Your task to perform on an android device: toggle notification dots Image 0: 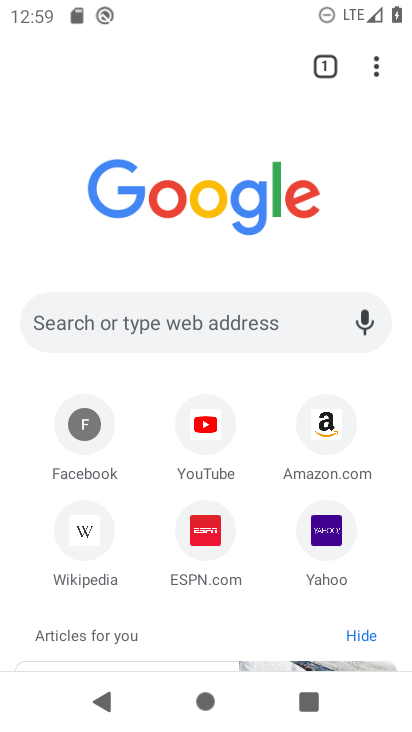
Step 0: press home button
Your task to perform on an android device: toggle notification dots Image 1: 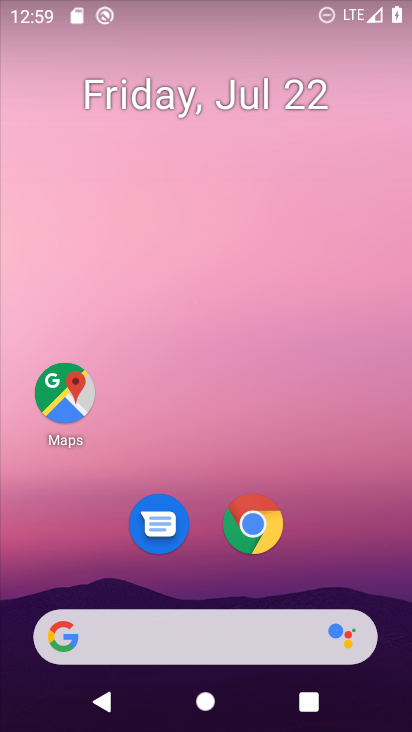
Step 1: drag from (311, 509) to (306, 64)
Your task to perform on an android device: toggle notification dots Image 2: 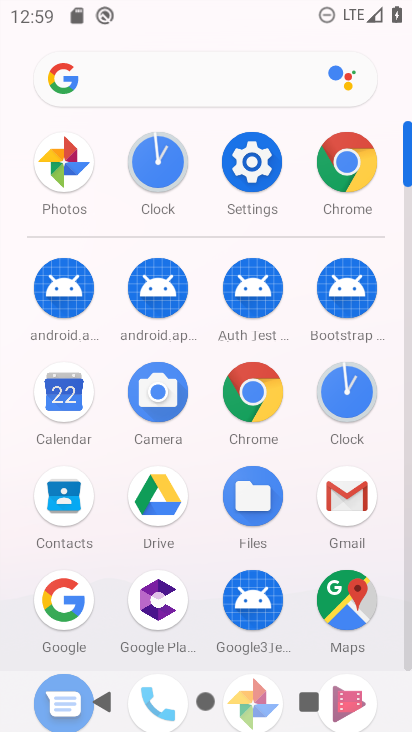
Step 2: click (253, 172)
Your task to perform on an android device: toggle notification dots Image 3: 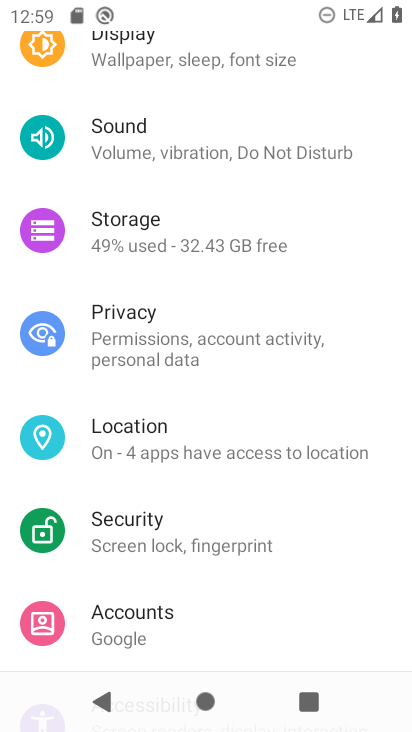
Step 3: drag from (227, 193) to (216, 633)
Your task to perform on an android device: toggle notification dots Image 4: 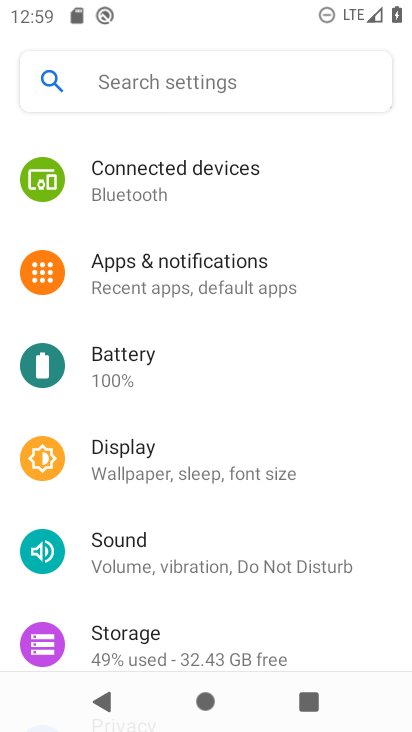
Step 4: click (268, 277)
Your task to perform on an android device: toggle notification dots Image 5: 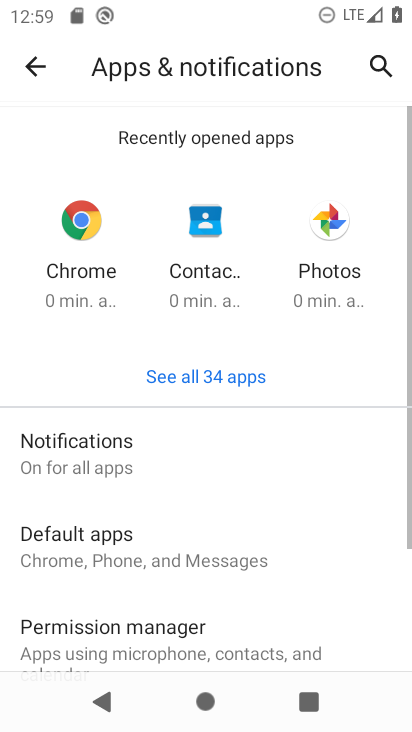
Step 5: drag from (211, 520) to (241, 166)
Your task to perform on an android device: toggle notification dots Image 6: 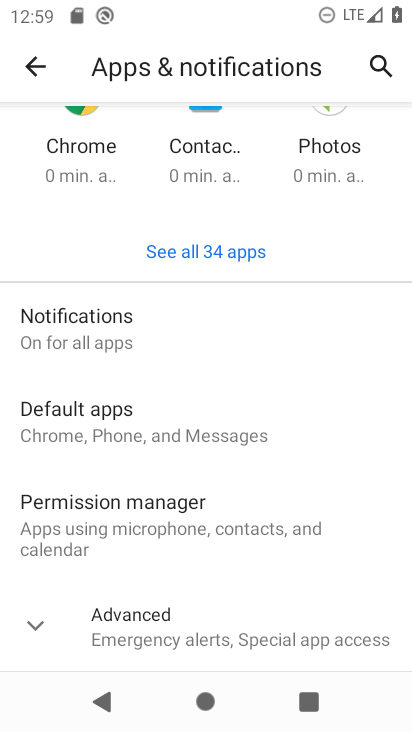
Step 6: click (104, 319)
Your task to perform on an android device: toggle notification dots Image 7: 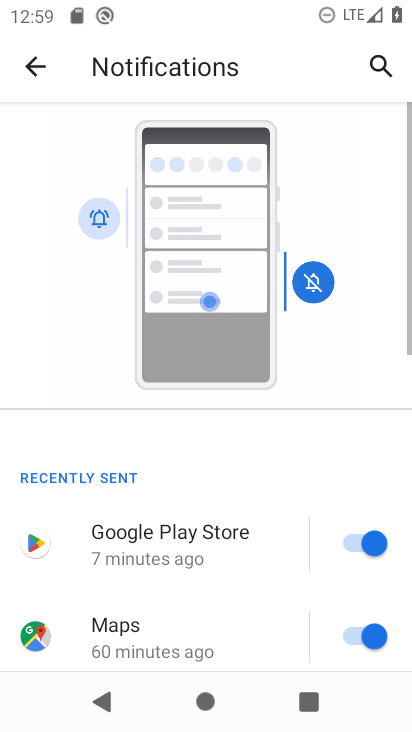
Step 7: drag from (247, 591) to (276, 56)
Your task to perform on an android device: toggle notification dots Image 8: 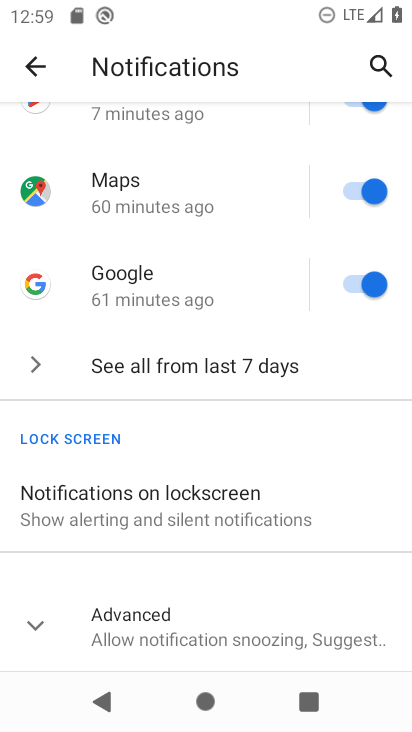
Step 8: click (26, 631)
Your task to perform on an android device: toggle notification dots Image 9: 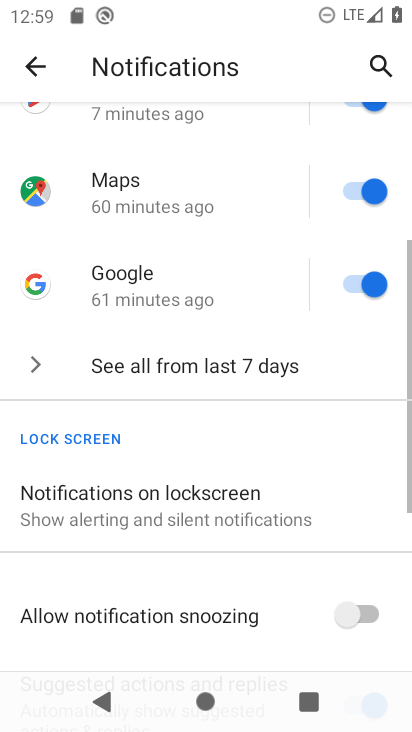
Step 9: drag from (279, 562) to (281, 179)
Your task to perform on an android device: toggle notification dots Image 10: 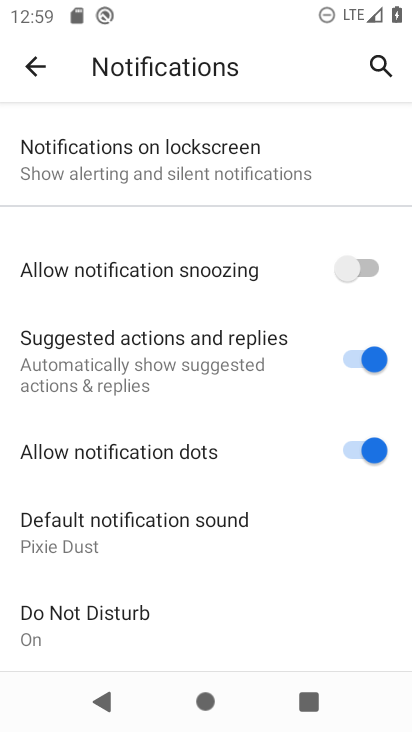
Step 10: click (371, 453)
Your task to perform on an android device: toggle notification dots Image 11: 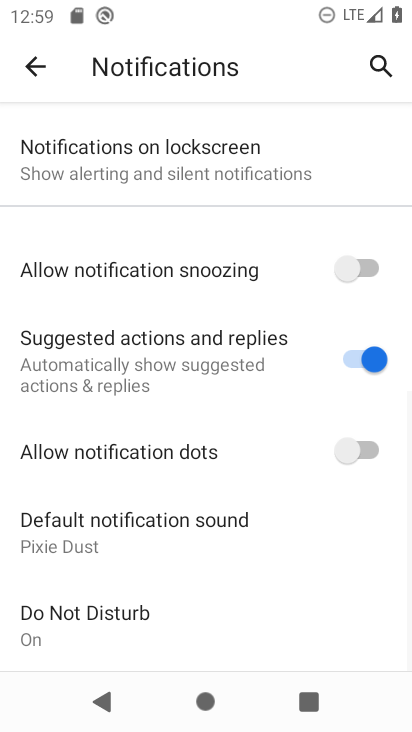
Step 11: task complete